Your task to perform on an android device: change the clock display to digital Image 0: 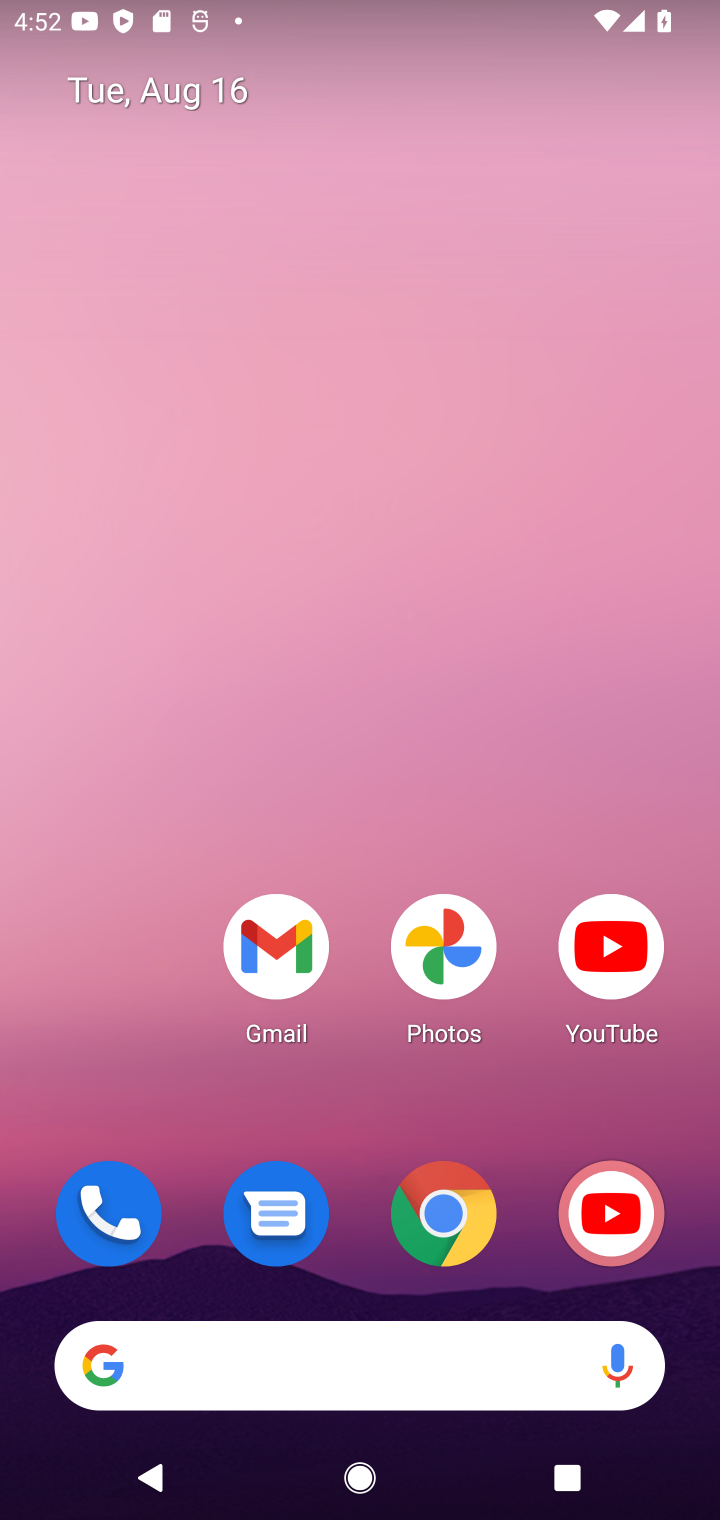
Step 0: drag from (344, 1102) to (219, 333)
Your task to perform on an android device: change the clock display to digital Image 1: 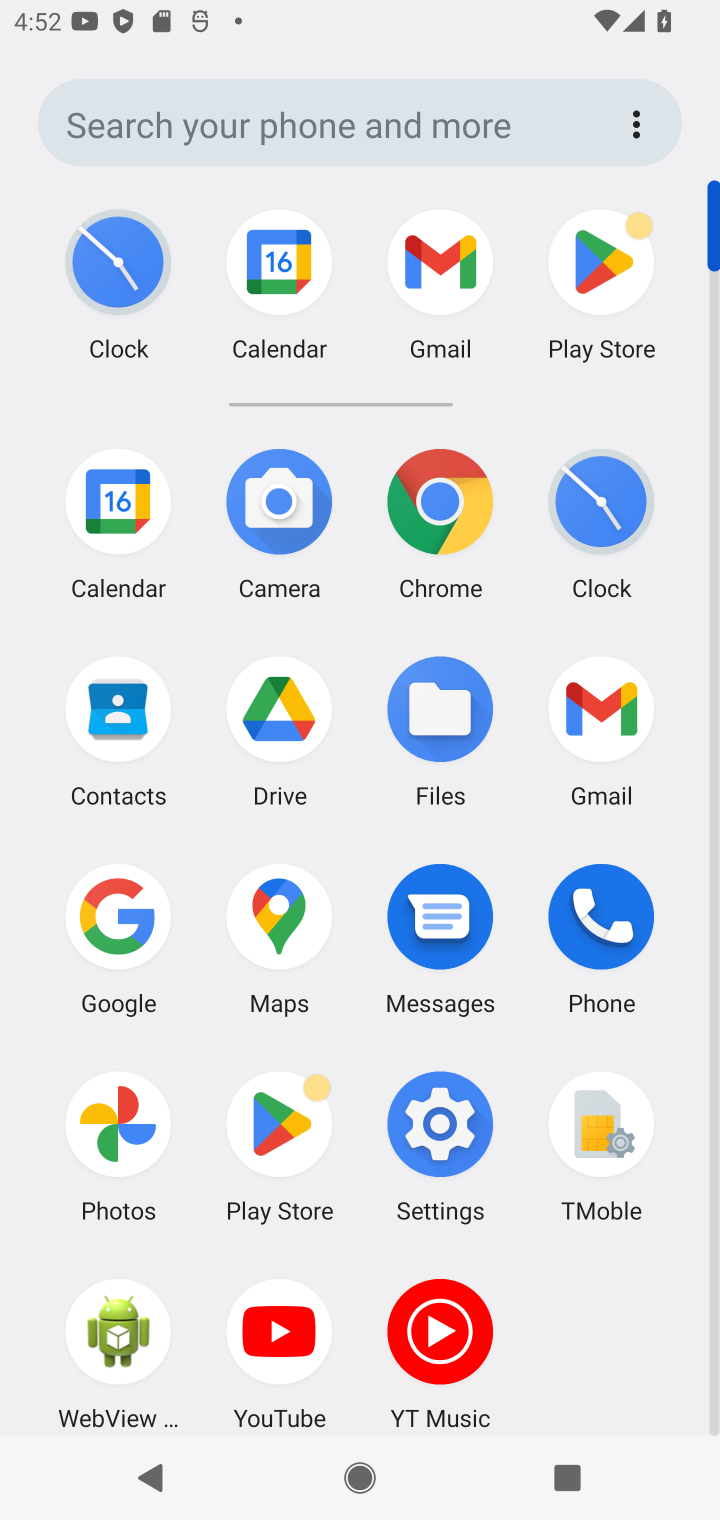
Step 1: click (617, 517)
Your task to perform on an android device: change the clock display to digital Image 2: 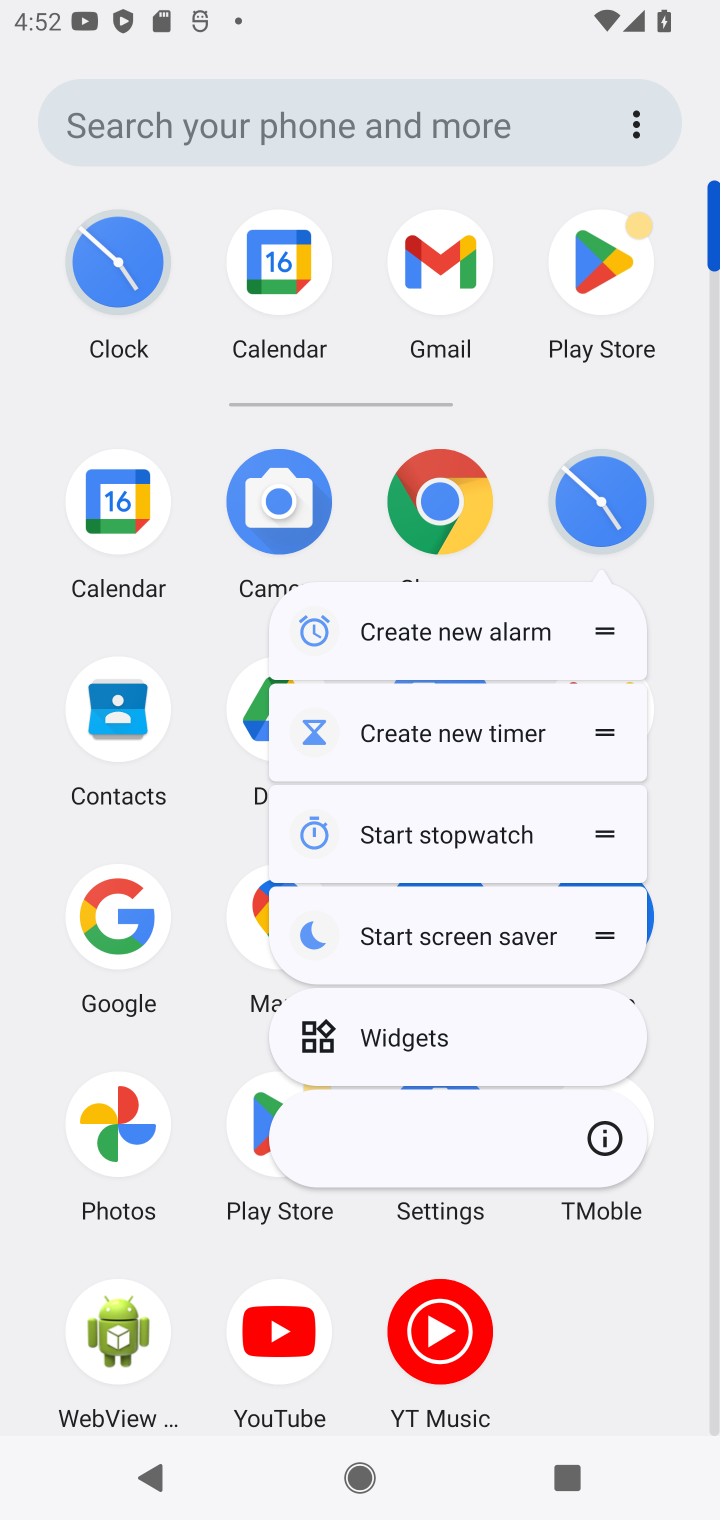
Step 2: click (602, 479)
Your task to perform on an android device: change the clock display to digital Image 3: 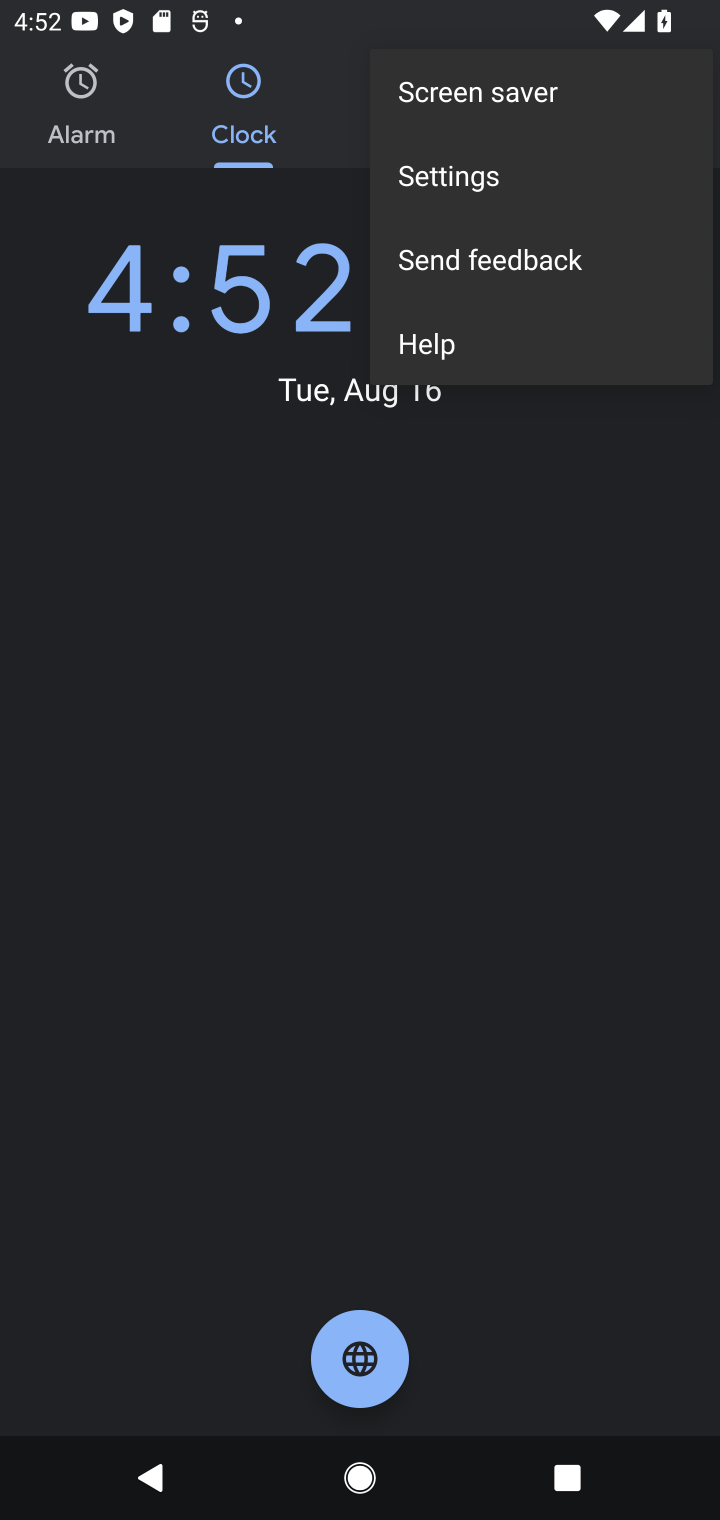
Step 3: click (445, 172)
Your task to perform on an android device: change the clock display to digital Image 4: 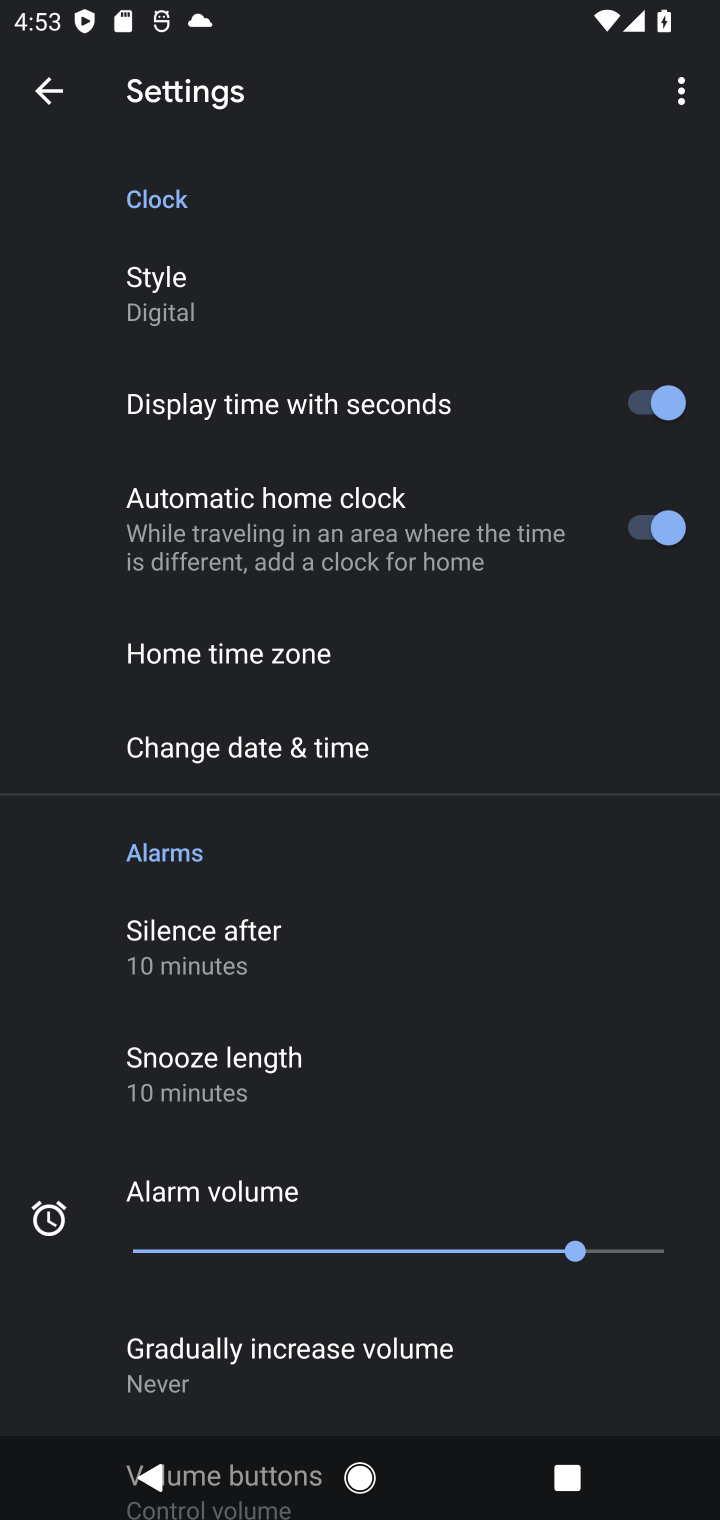
Step 4: task complete